Your task to perform on an android device: turn off smart reply in the gmail app Image 0: 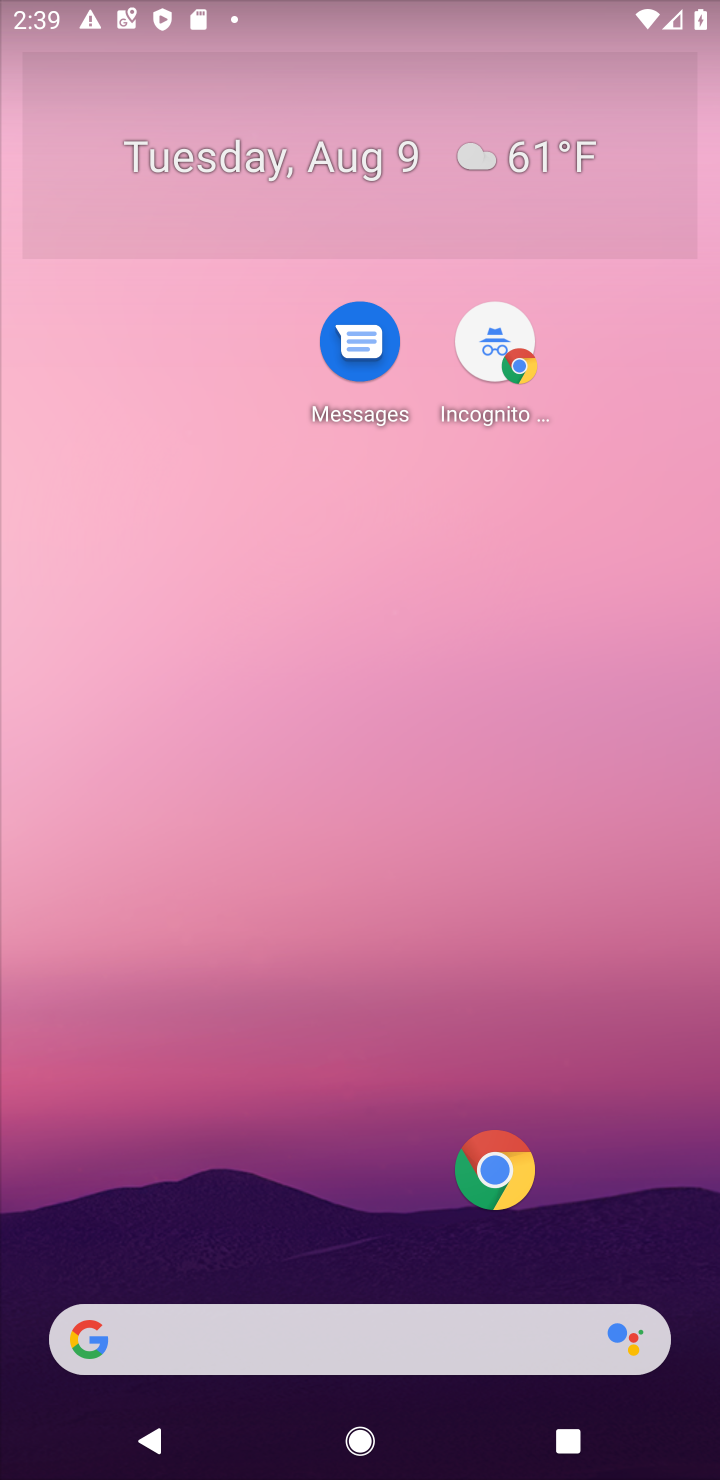
Step 0: drag from (262, 425) to (498, 4)
Your task to perform on an android device: turn off smart reply in the gmail app Image 1: 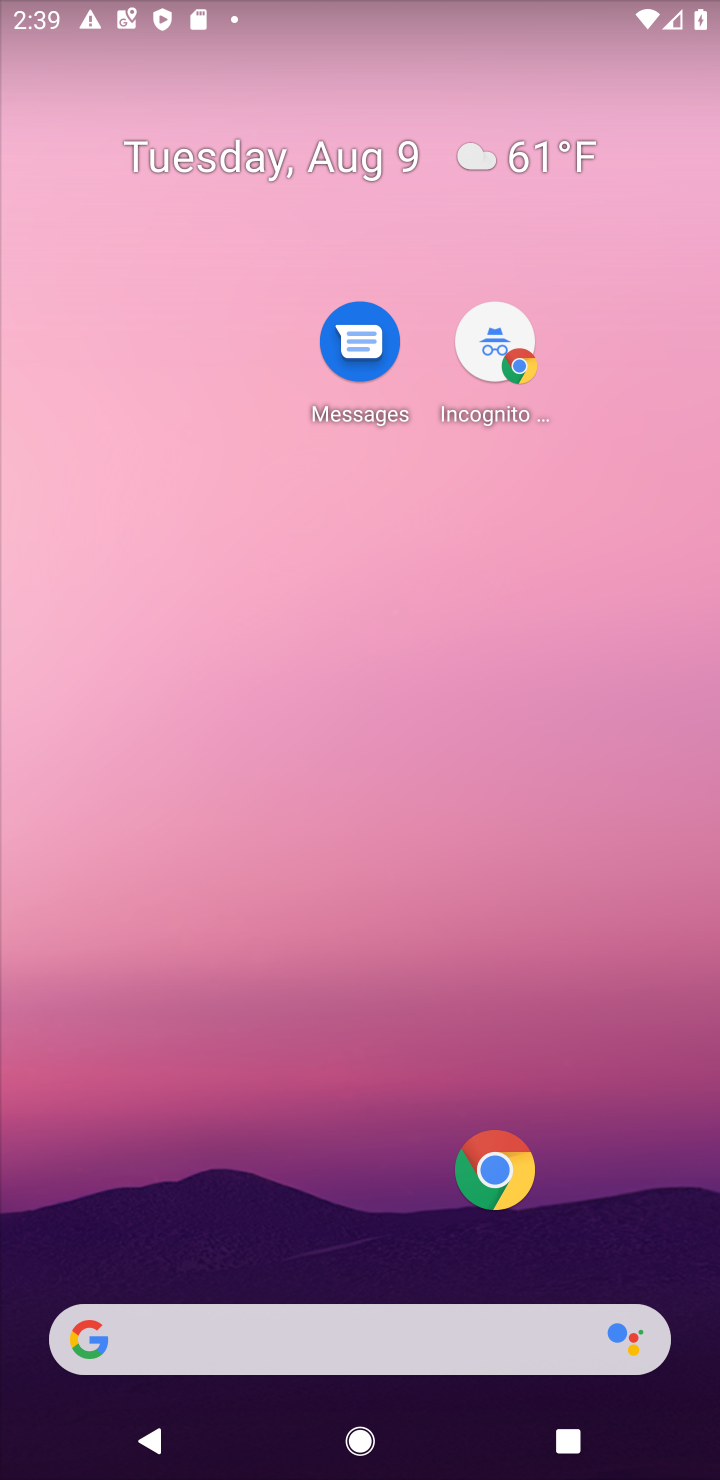
Step 1: drag from (287, 9) to (472, 8)
Your task to perform on an android device: turn off smart reply in the gmail app Image 2: 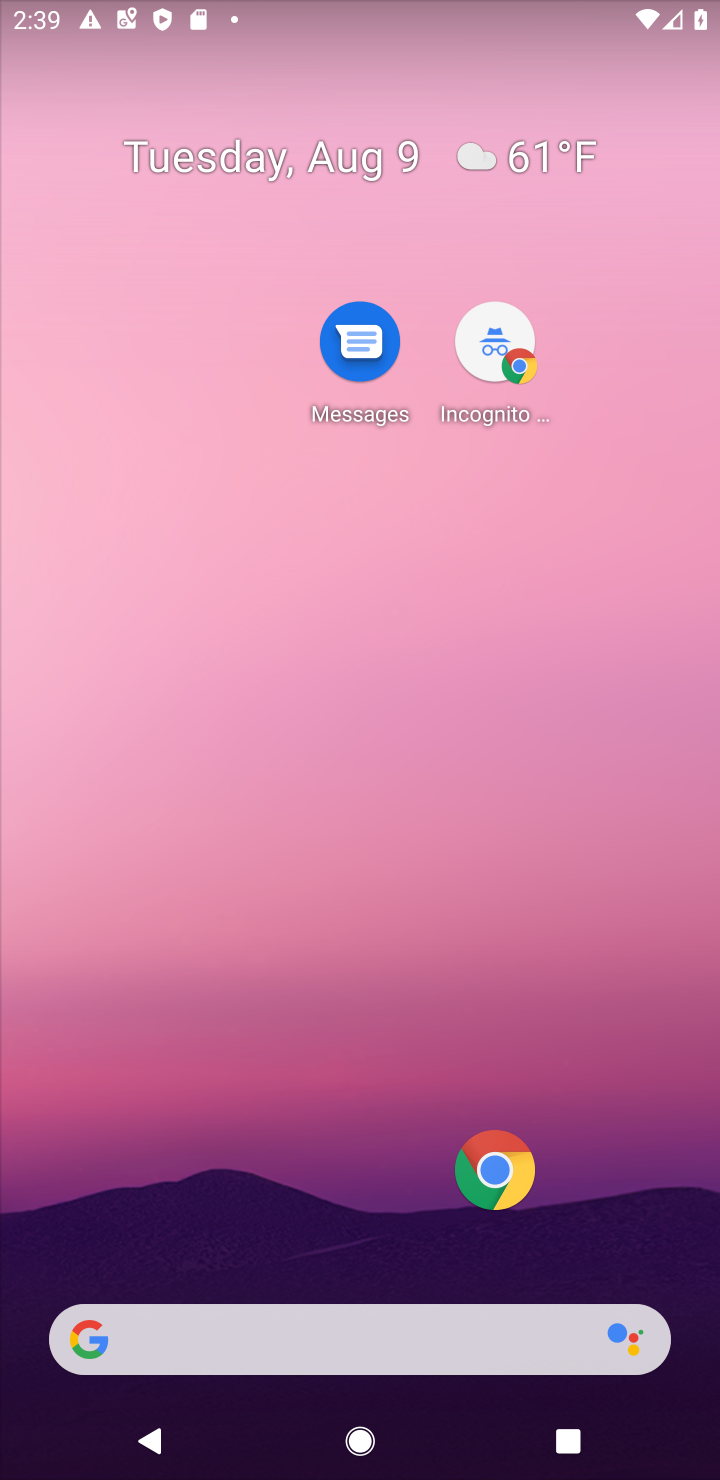
Step 2: drag from (233, 1153) to (520, 32)
Your task to perform on an android device: turn off smart reply in the gmail app Image 3: 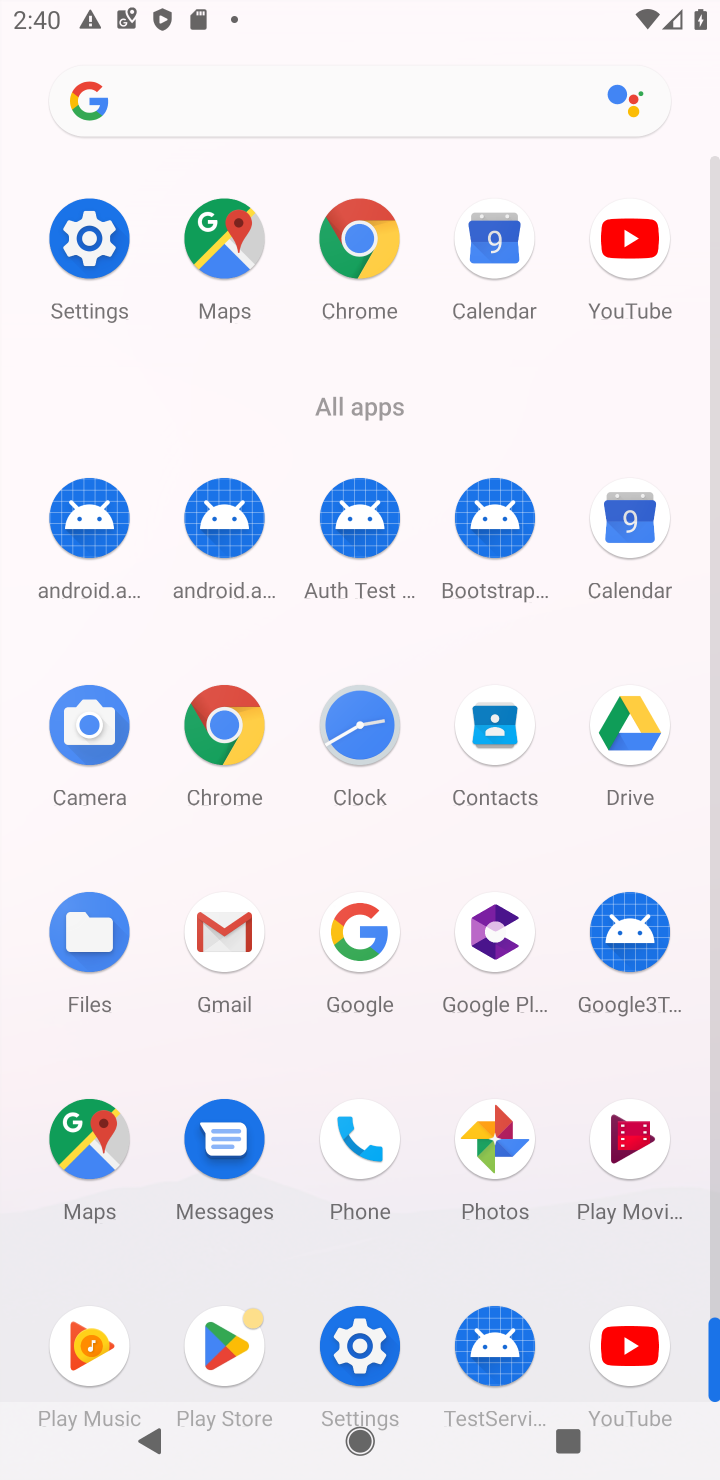
Step 3: click (217, 916)
Your task to perform on an android device: turn off smart reply in the gmail app Image 4: 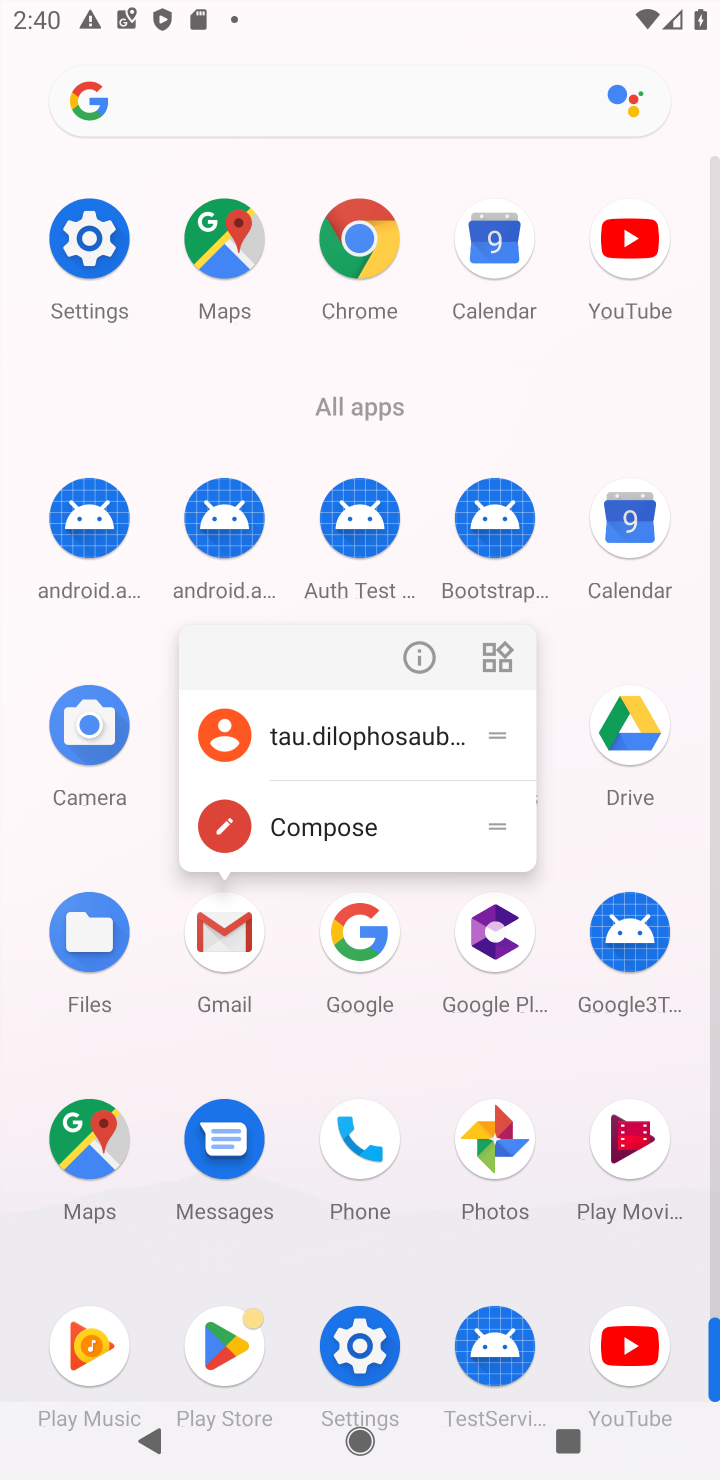
Step 4: click (219, 922)
Your task to perform on an android device: turn off smart reply in the gmail app Image 5: 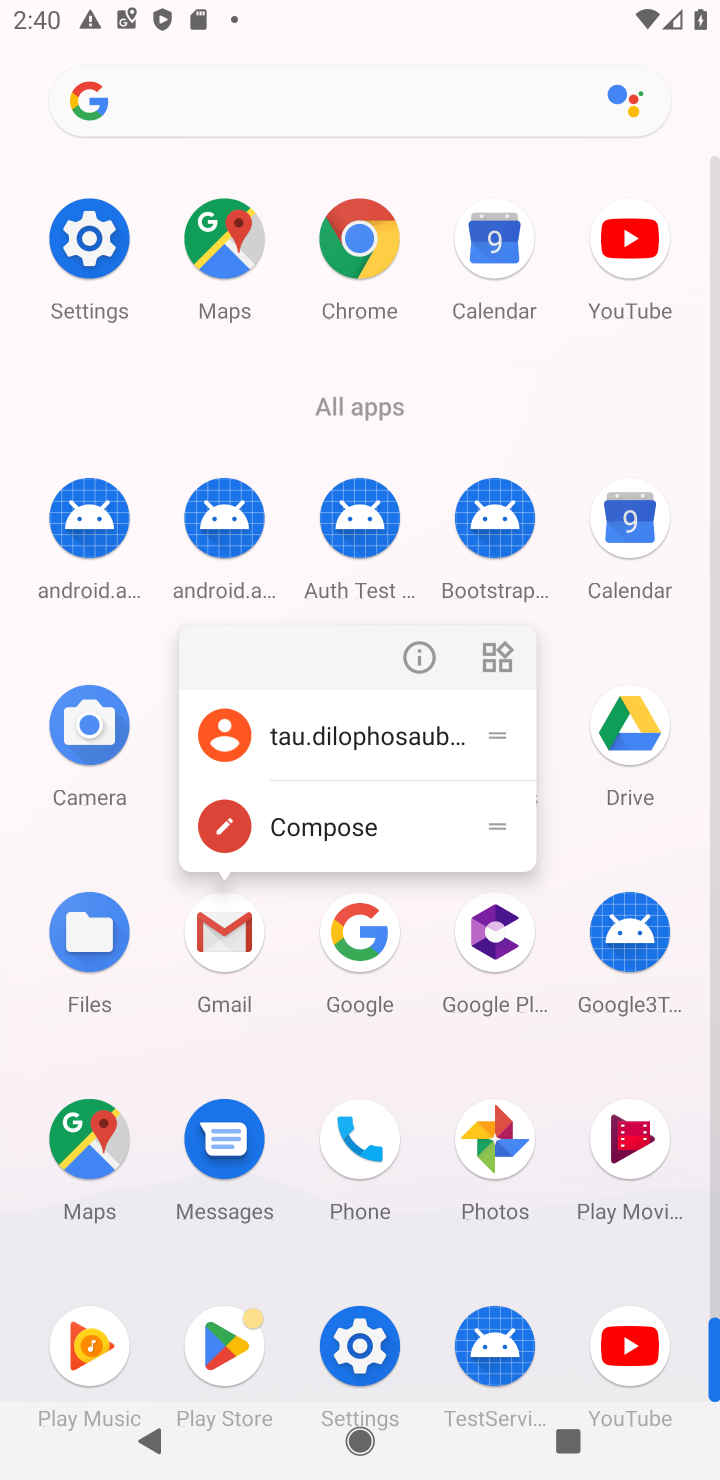
Step 5: click (223, 928)
Your task to perform on an android device: turn off smart reply in the gmail app Image 6: 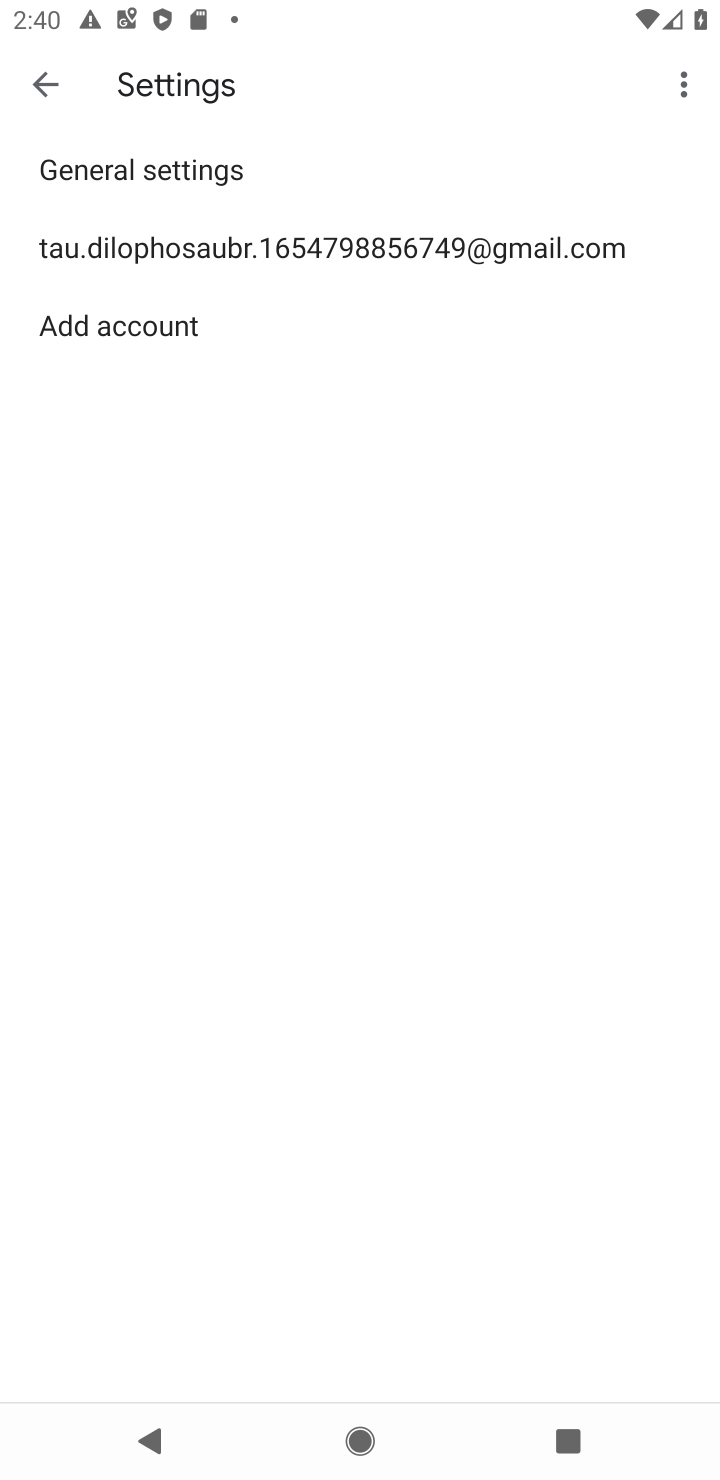
Step 6: click (194, 246)
Your task to perform on an android device: turn off smart reply in the gmail app Image 7: 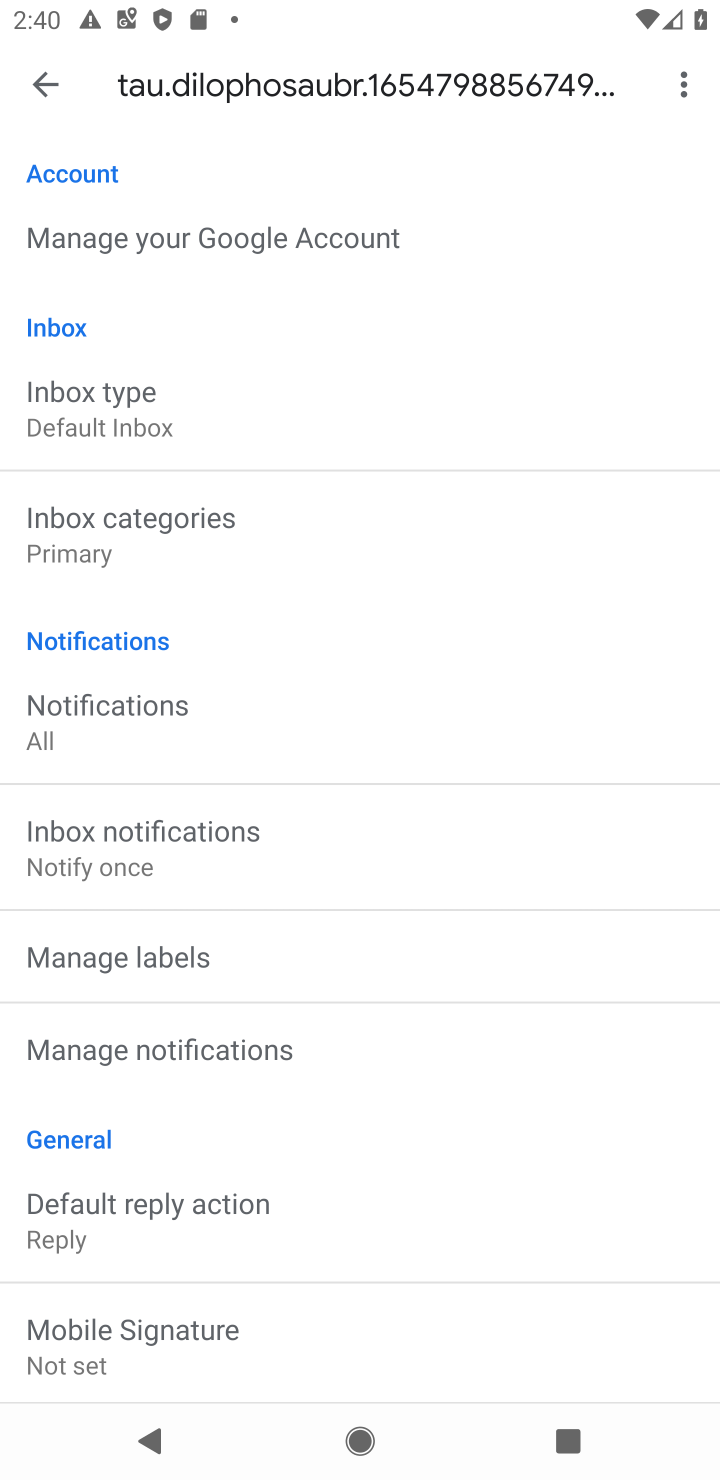
Step 7: drag from (280, 1120) to (323, 210)
Your task to perform on an android device: turn off smart reply in the gmail app Image 8: 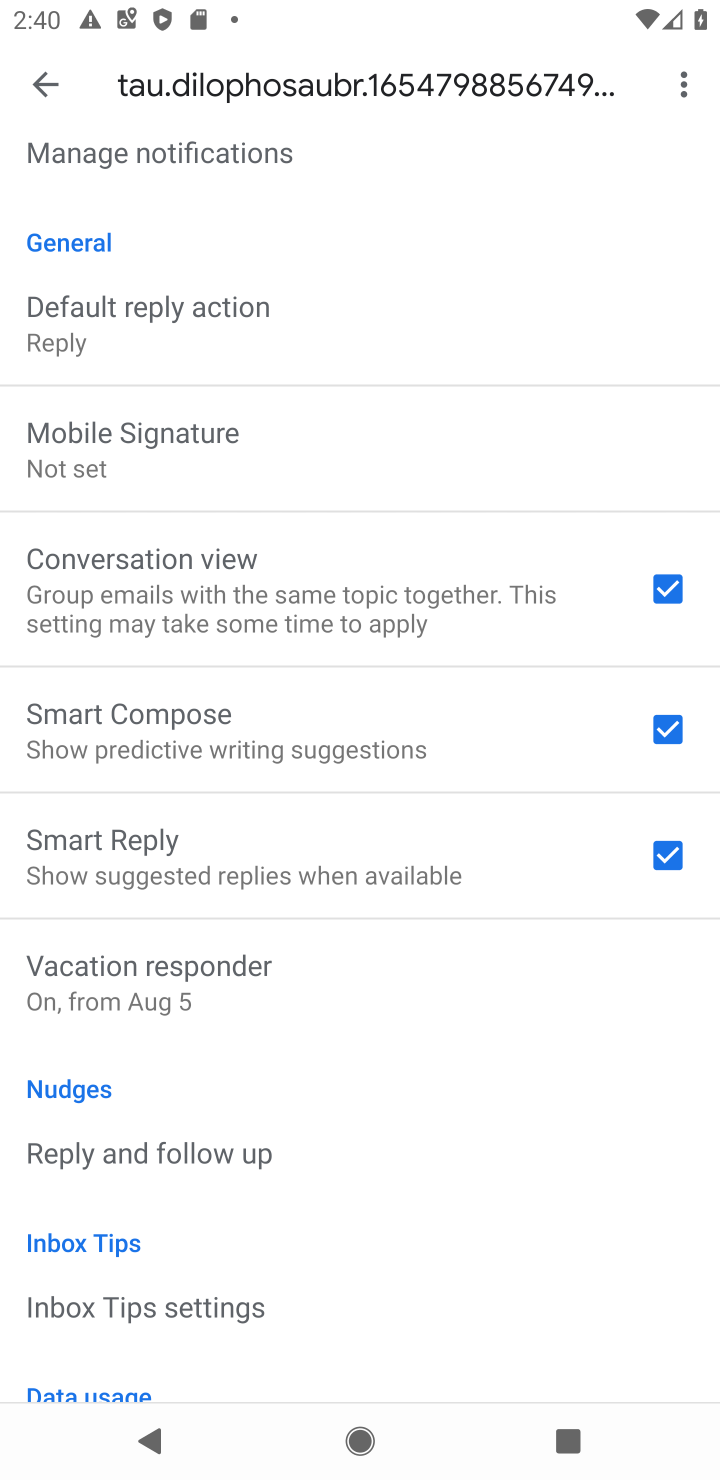
Step 8: drag from (380, 1066) to (426, 760)
Your task to perform on an android device: turn off smart reply in the gmail app Image 9: 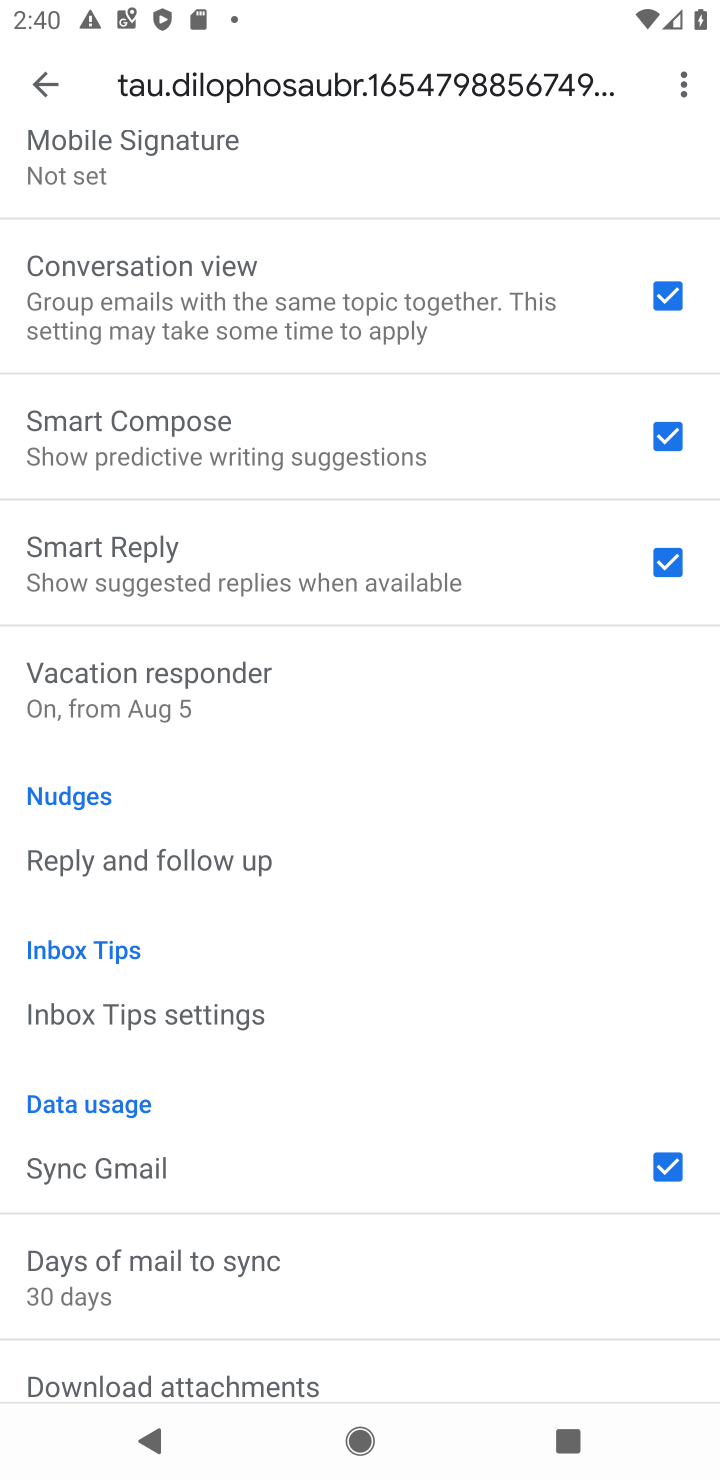
Step 9: click (639, 569)
Your task to perform on an android device: turn off smart reply in the gmail app Image 10: 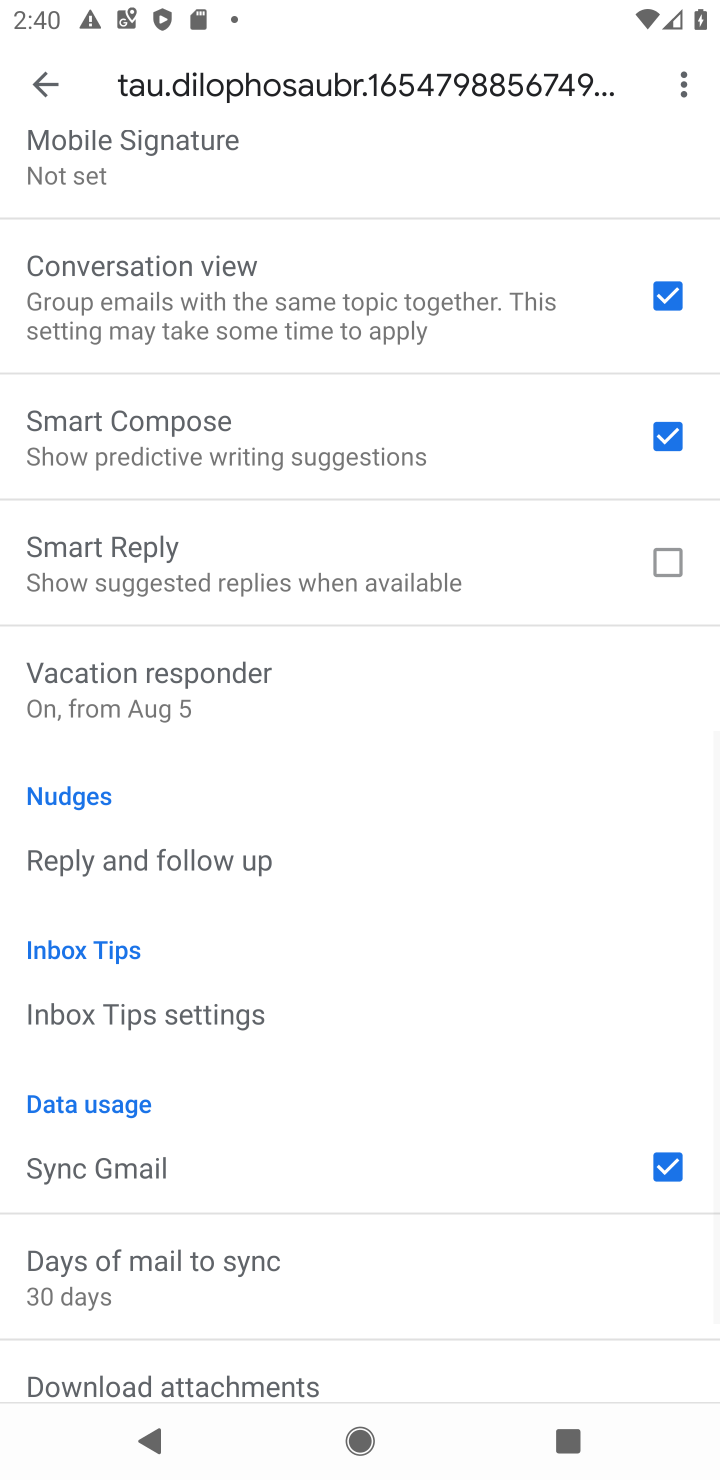
Step 10: task complete